Your task to perform on an android device: open app "Messenger Lite" (install if not already installed), go to login, and select forgot password Image 0: 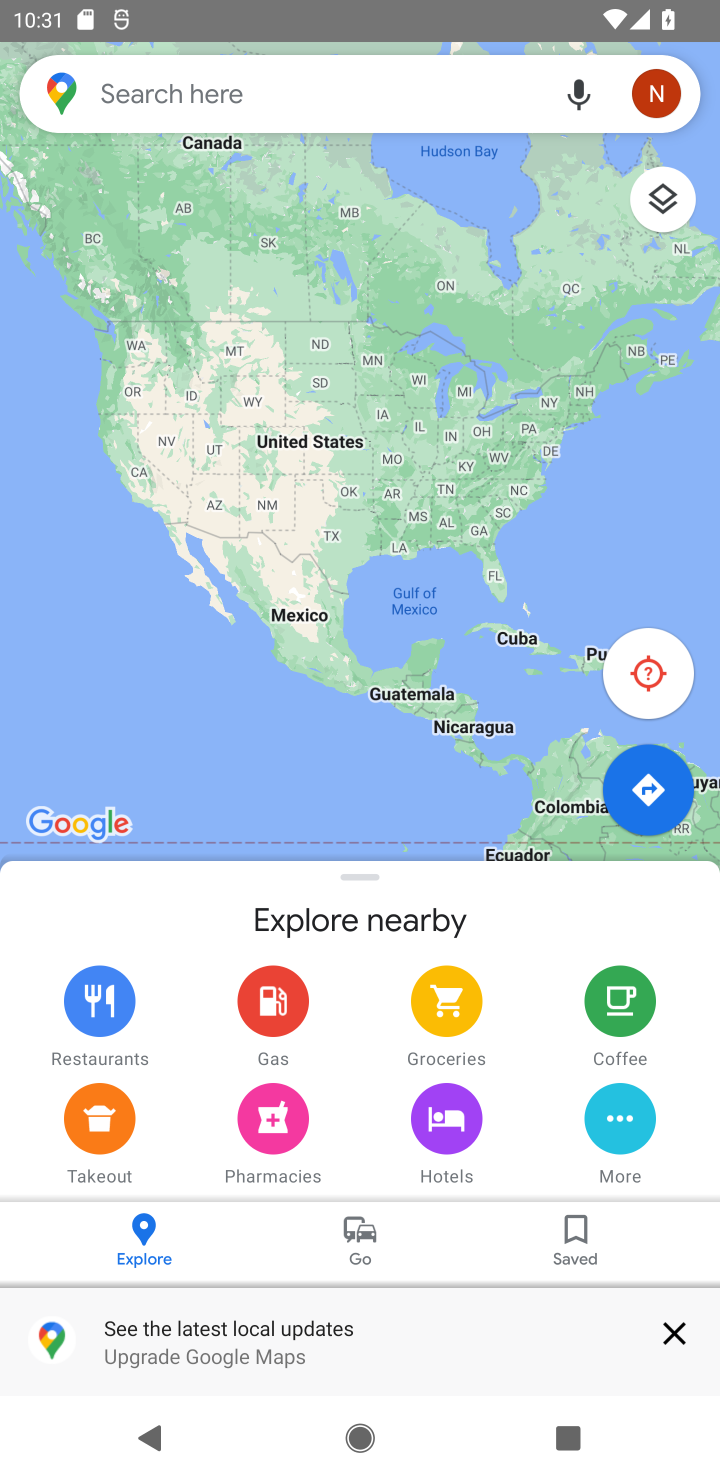
Step 0: press home button
Your task to perform on an android device: open app "Messenger Lite" (install if not already installed), go to login, and select forgot password Image 1: 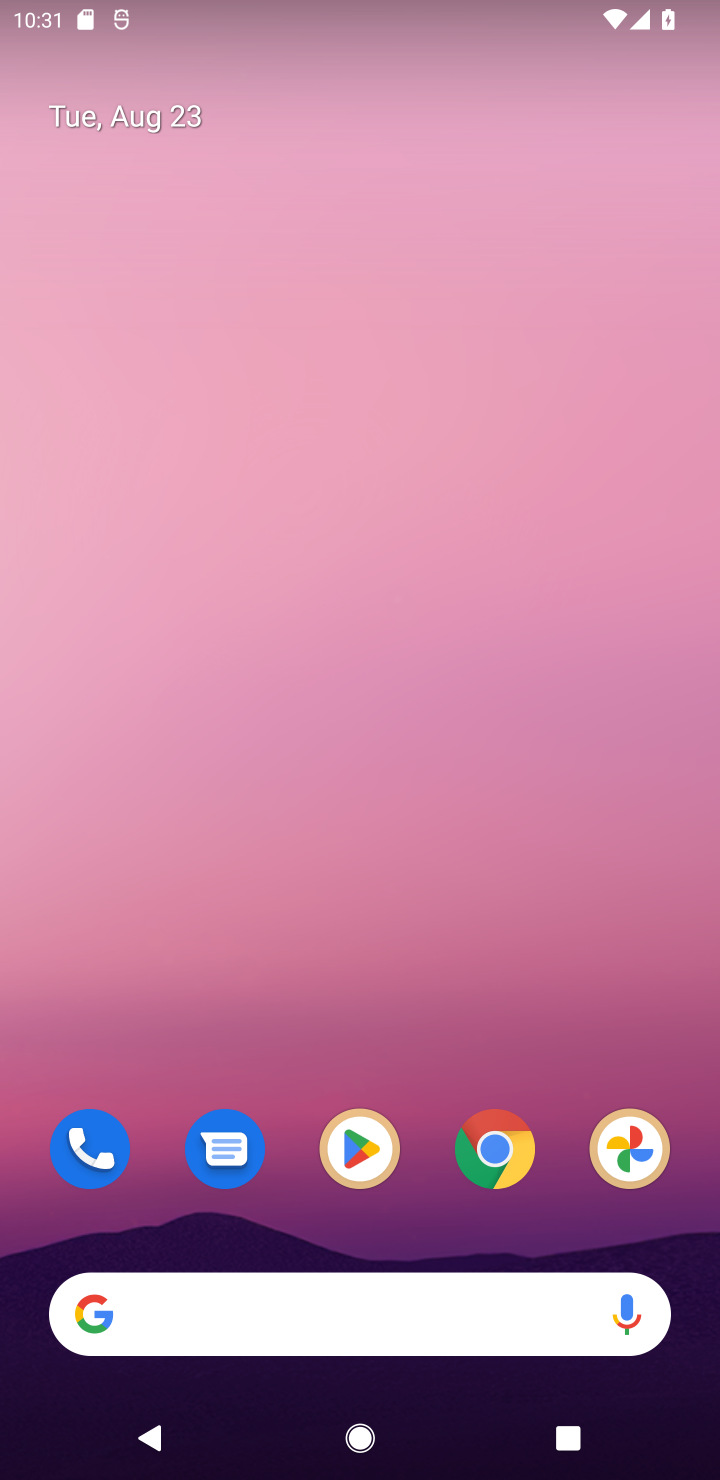
Step 1: drag from (286, 1238) to (277, 314)
Your task to perform on an android device: open app "Messenger Lite" (install if not already installed), go to login, and select forgot password Image 2: 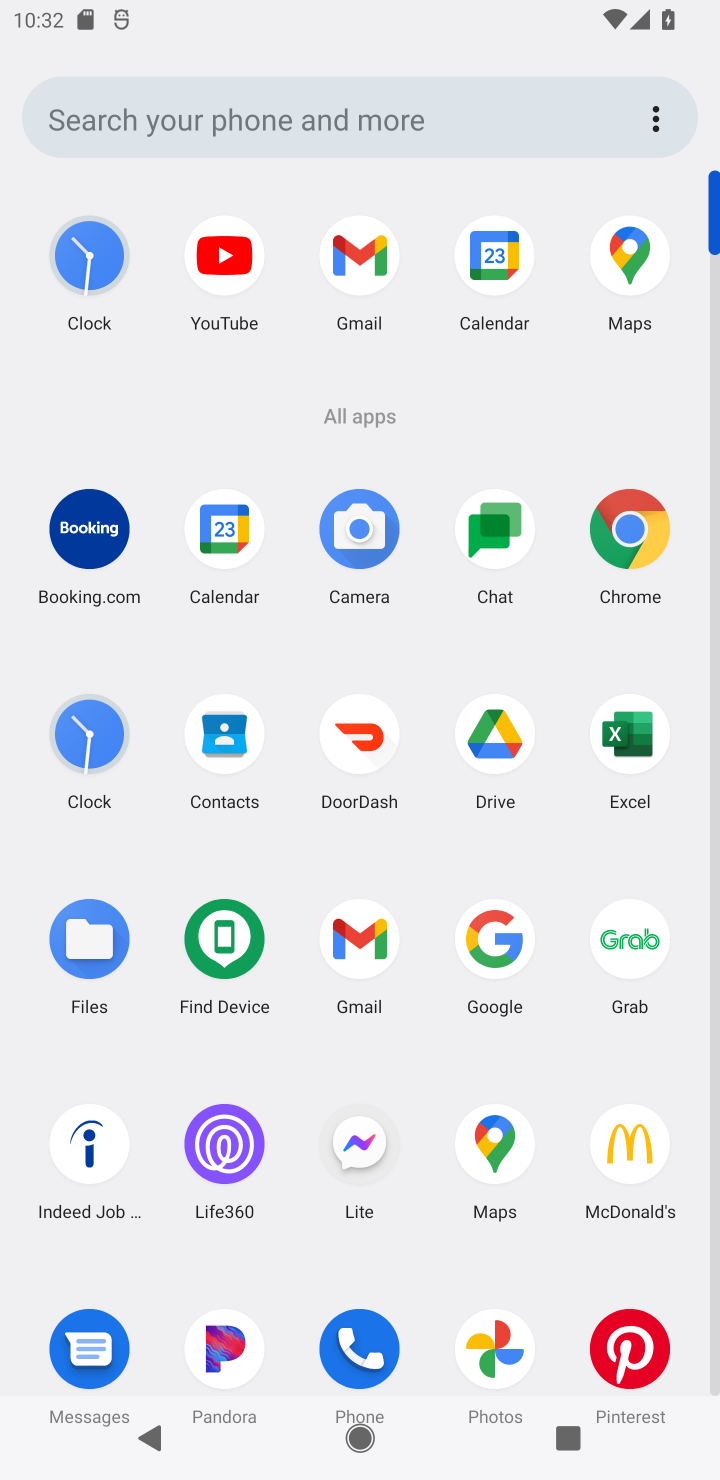
Step 2: click (359, 1160)
Your task to perform on an android device: open app "Messenger Lite" (install if not already installed), go to login, and select forgot password Image 3: 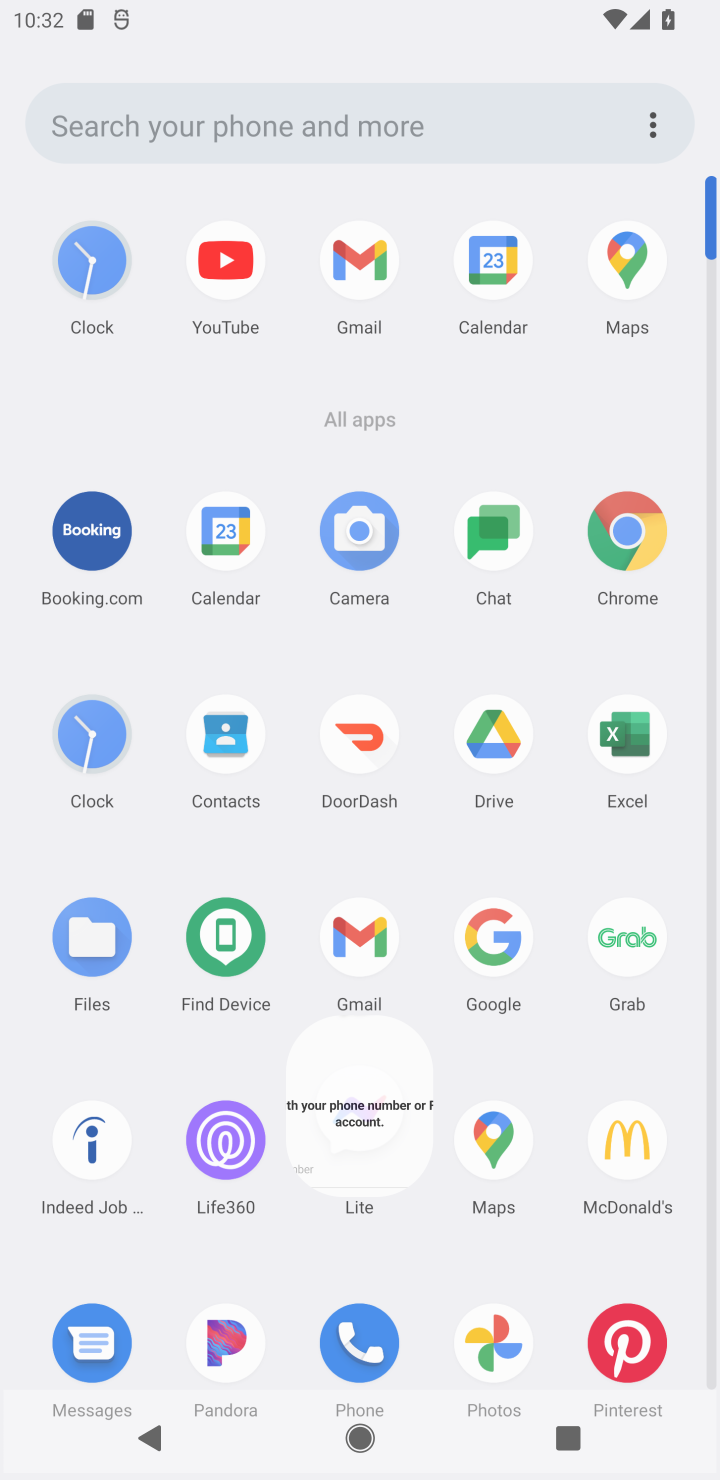
Step 3: task complete